Your task to perform on an android device: open app "Nova Launcher" (install if not already installed) Image 0: 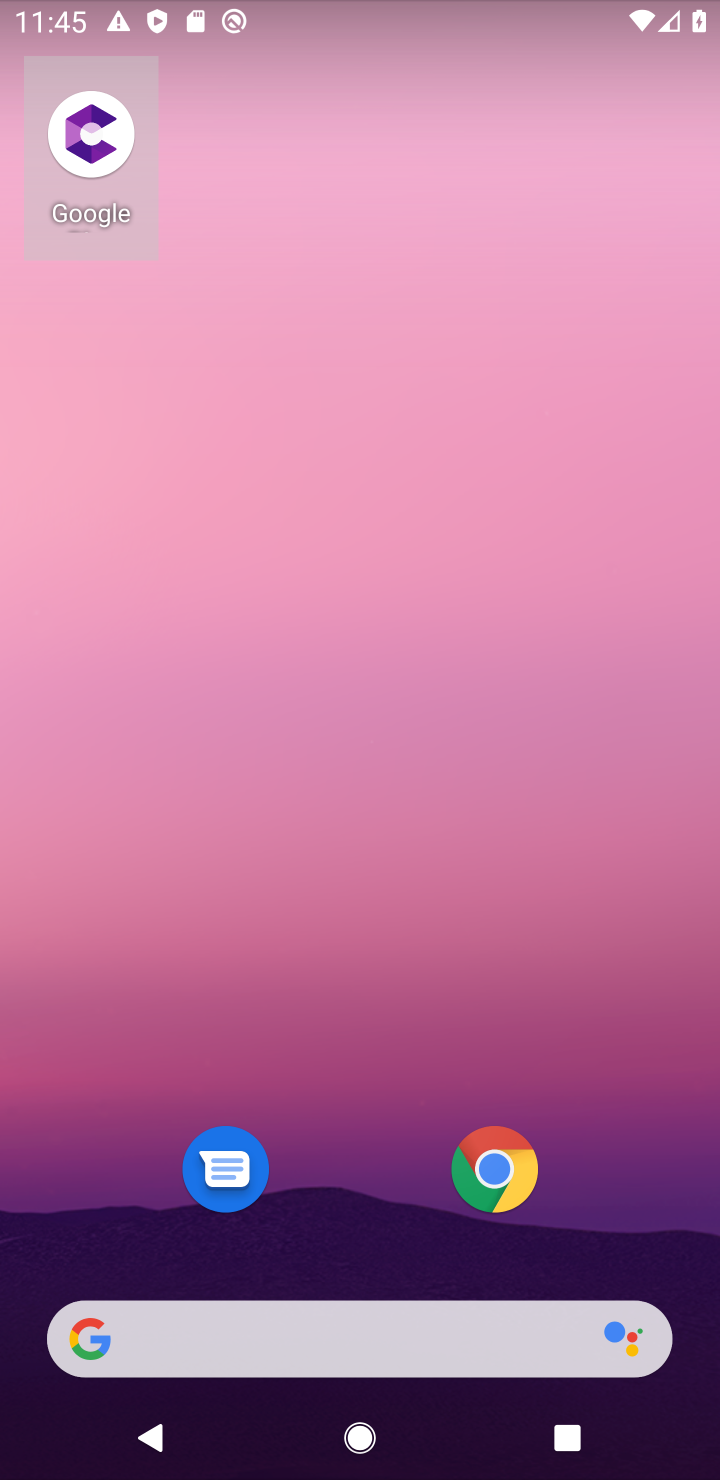
Step 0: drag from (280, 1276) to (205, 44)
Your task to perform on an android device: open app "Nova Launcher" (install if not already installed) Image 1: 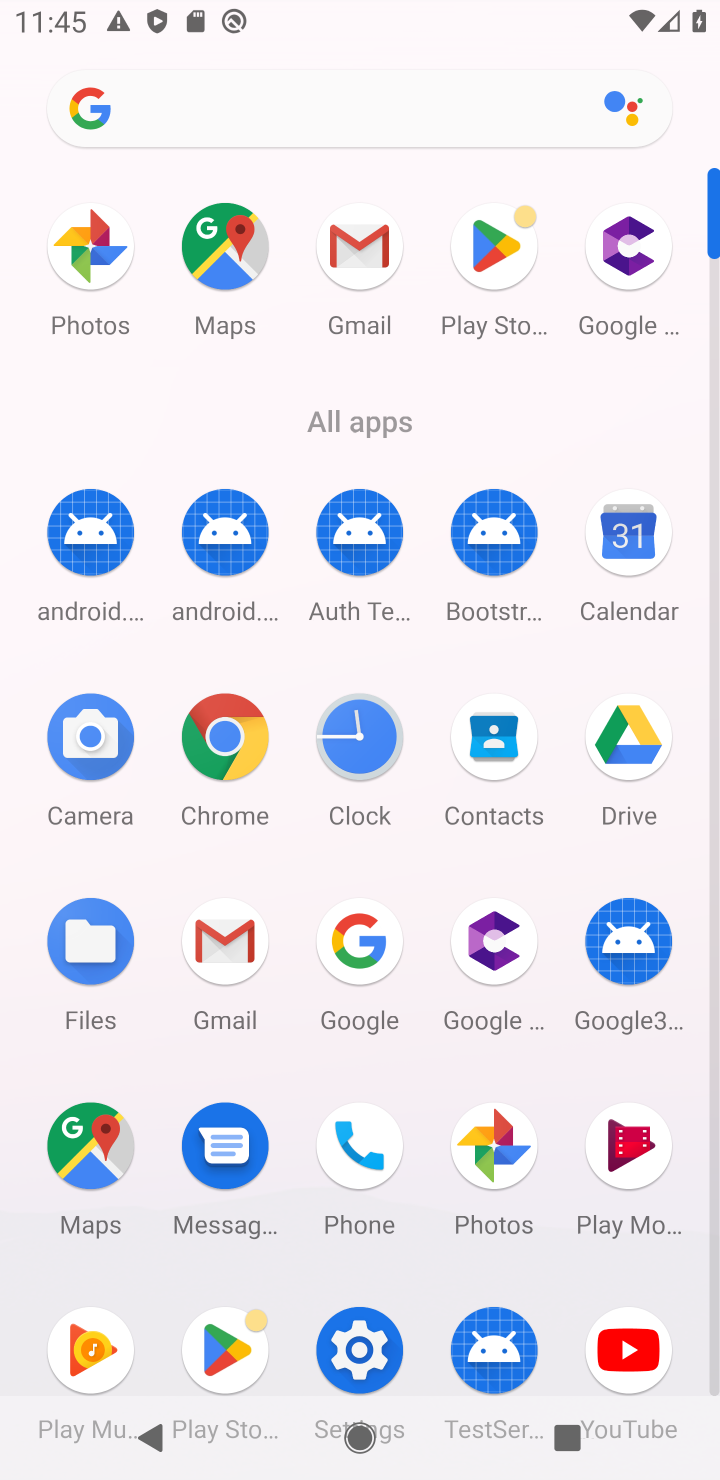
Step 1: click (203, 1325)
Your task to perform on an android device: open app "Nova Launcher" (install if not already installed) Image 2: 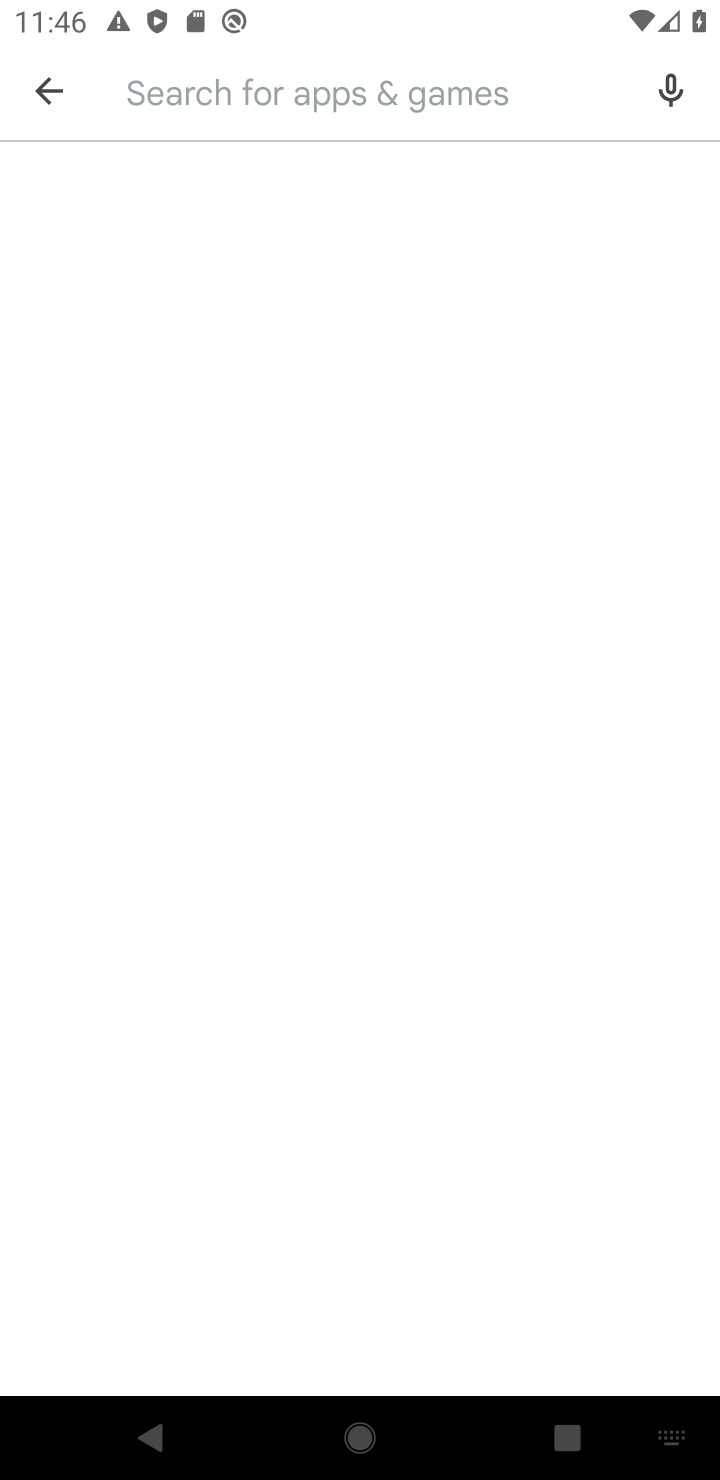
Step 2: type "Nova Launcher"
Your task to perform on an android device: open app "Nova Launcher" (install if not already installed) Image 3: 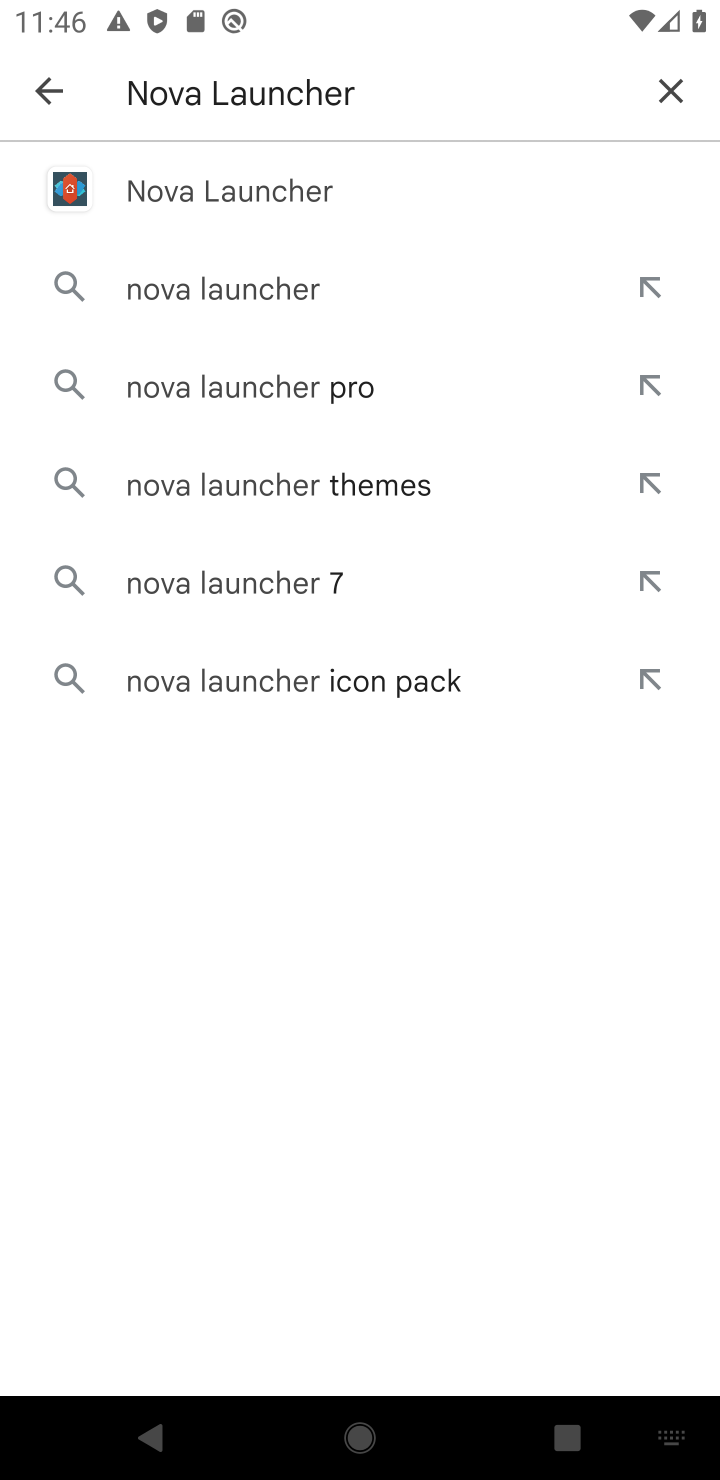
Step 3: click (196, 196)
Your task to perform on an android device: open app "Nova Launcher" (install if not already installed) Image 4: 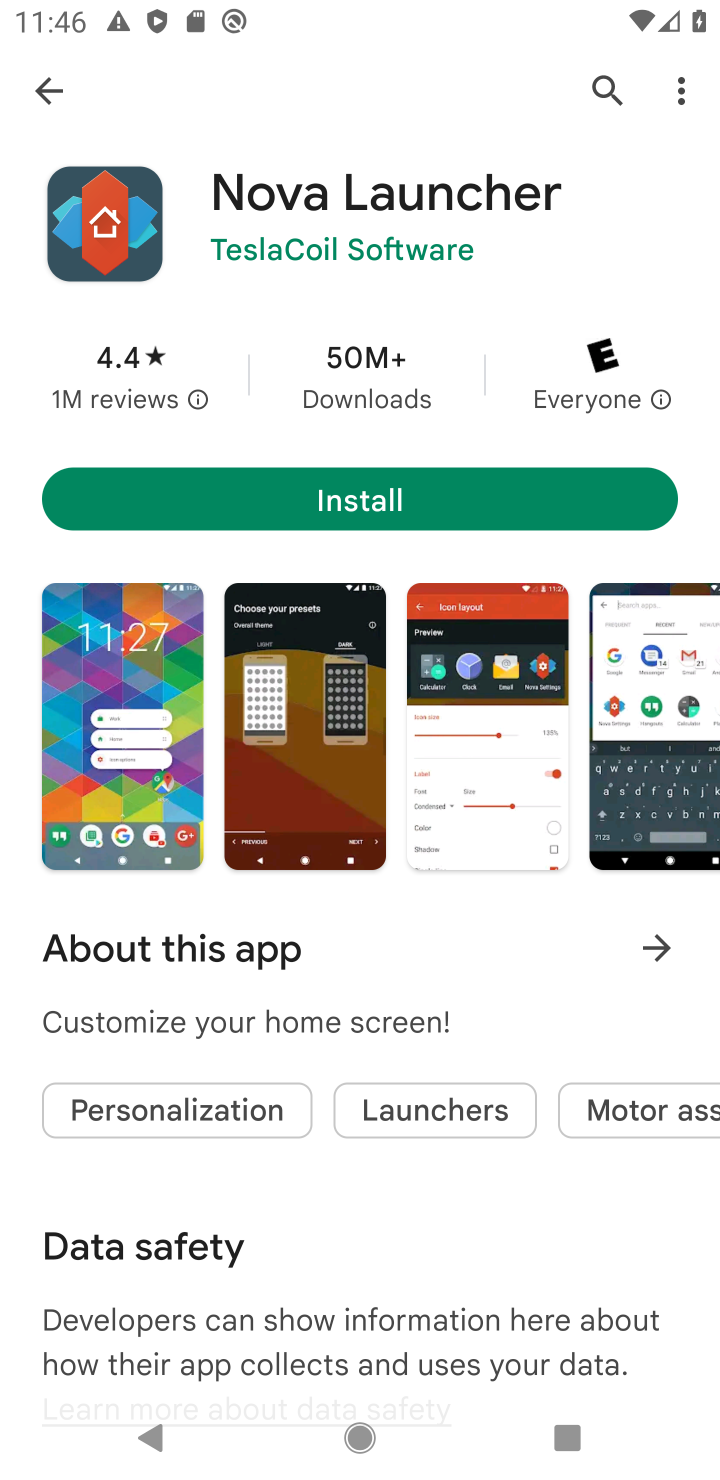
Step 4: click (381, 480)
Your task to perform on an android device: open app "Nova Launcher" (install if not already installed) Image 5: 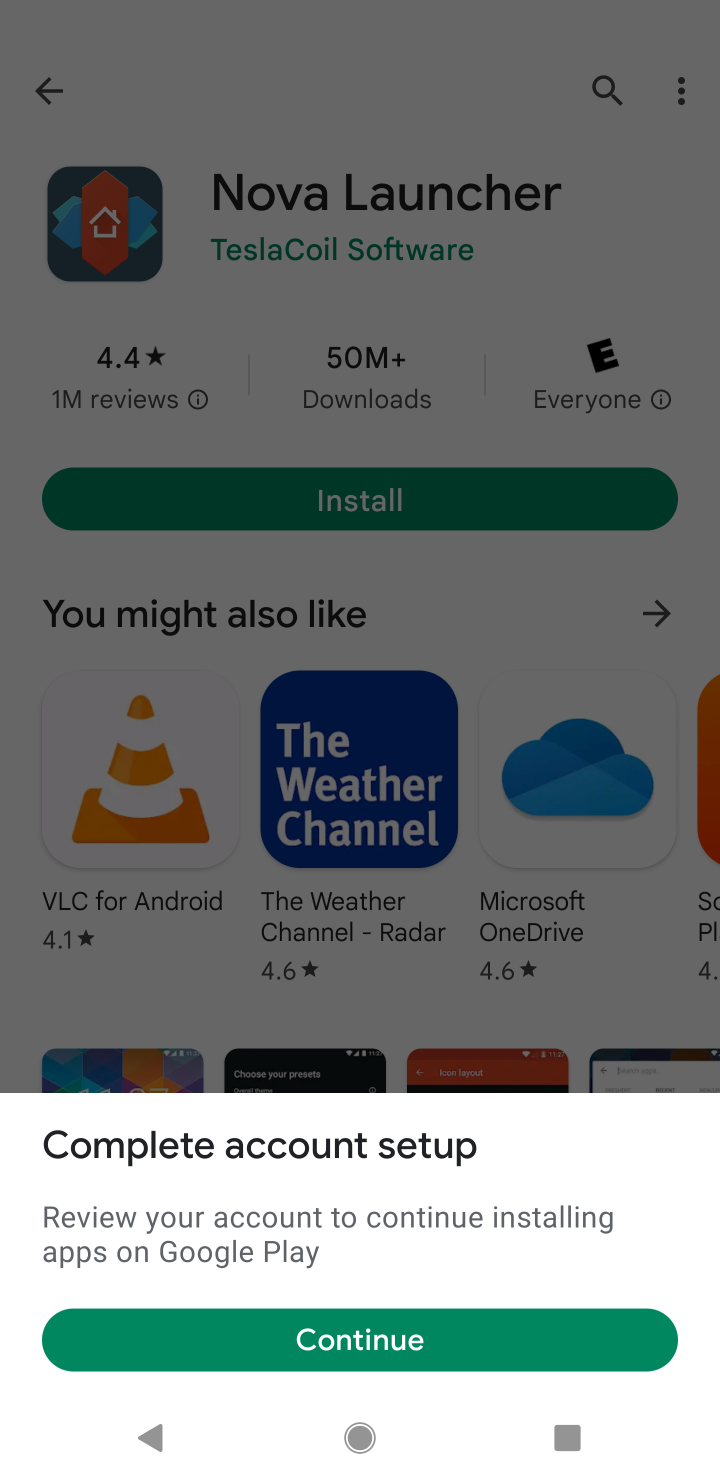
Step 5: click (259, 1334)
Your task to perform on an android device: open app "Nova Launcher" (install if not already installed) Image 6: 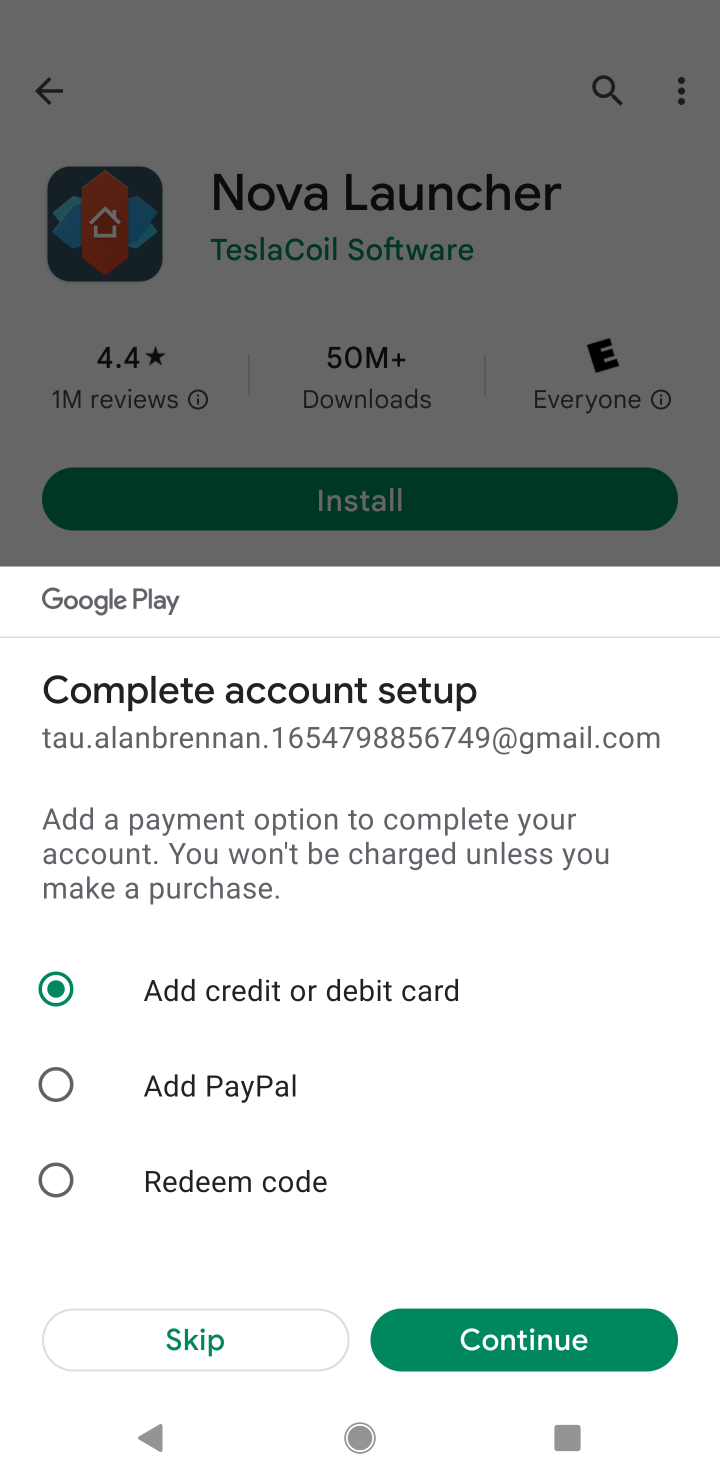
Step 6: click (200, 1335)
Your task to perform on an android device: open app "Nova Launcher" (install if not already installed) Image 7: 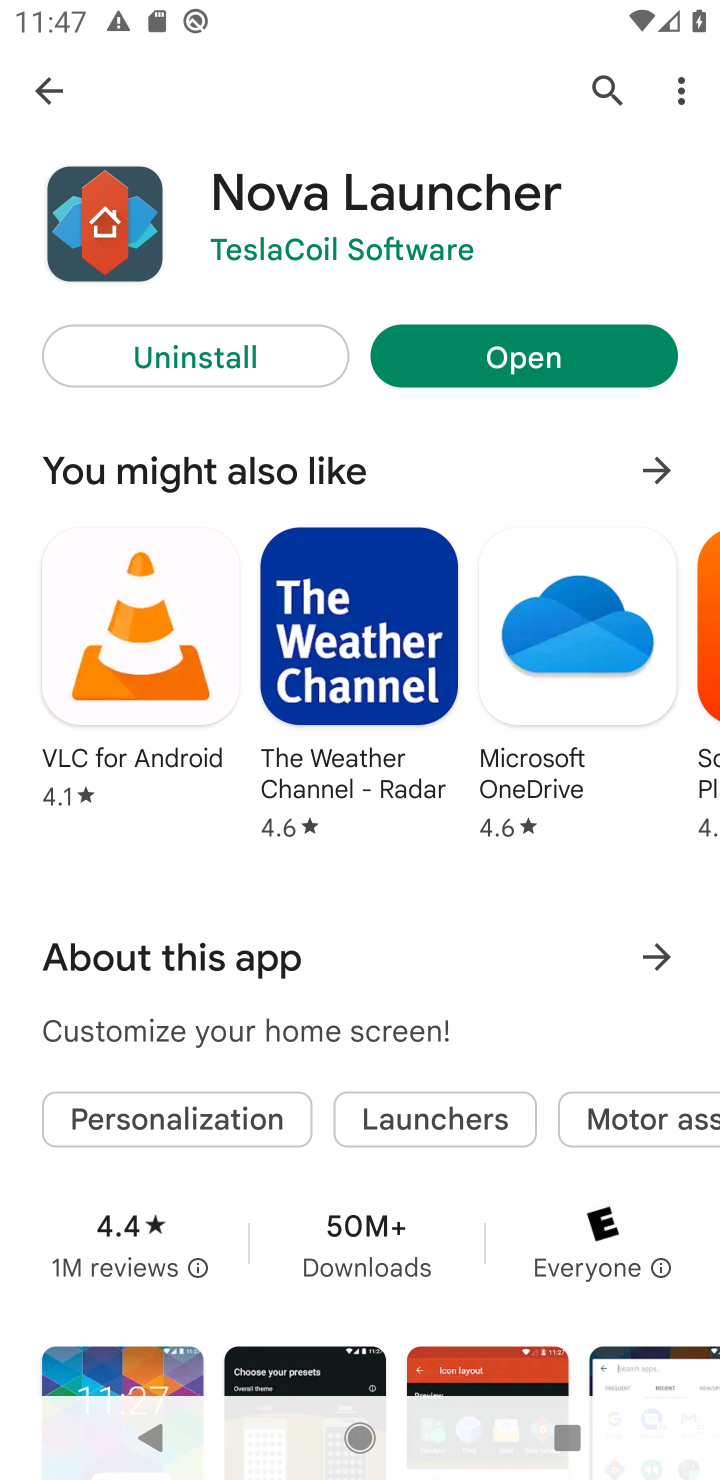
Step 7: click (488, 364)
Your task to perform on an android device: open app "Nova Launcher" (install if not already installed) Image 8: 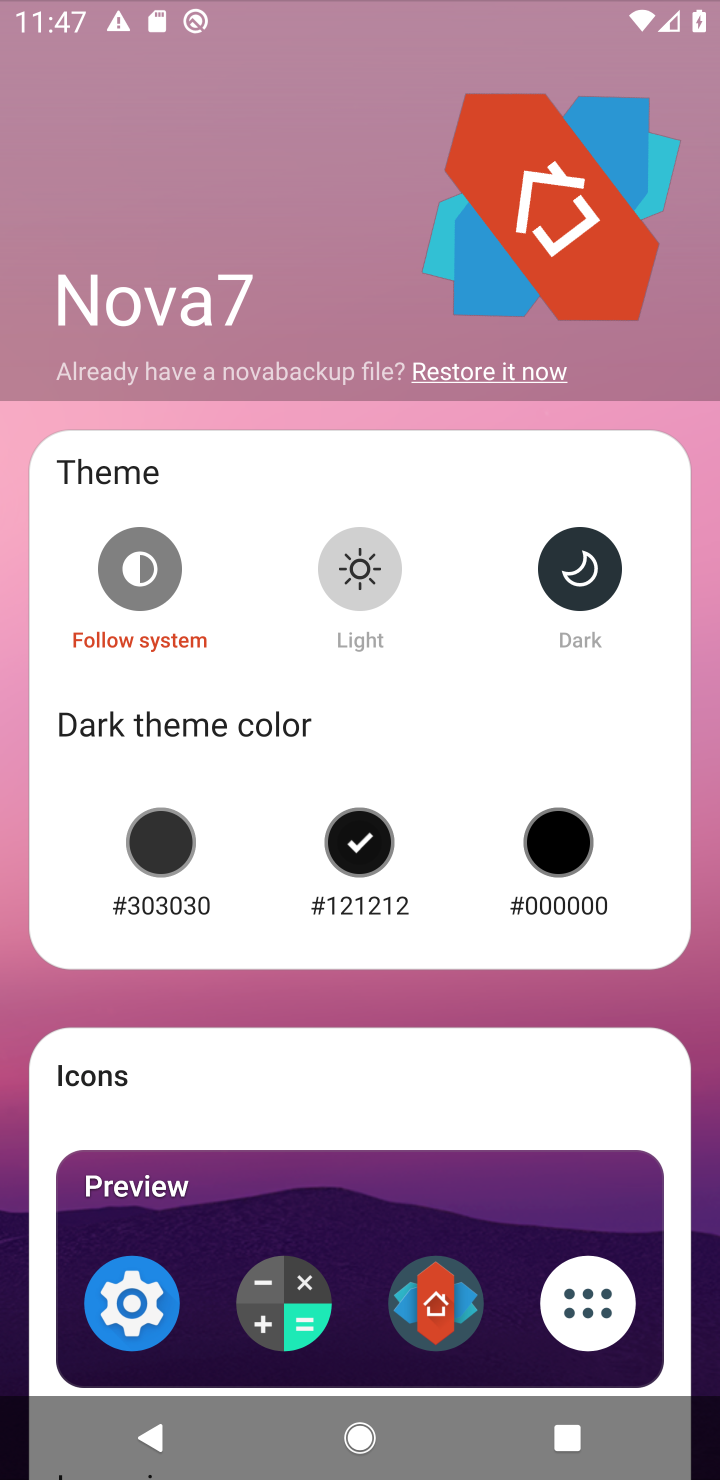
Step 8: task complete